Your task to perform on an android device: Search for Mexican restaurants on Maps Image 0: 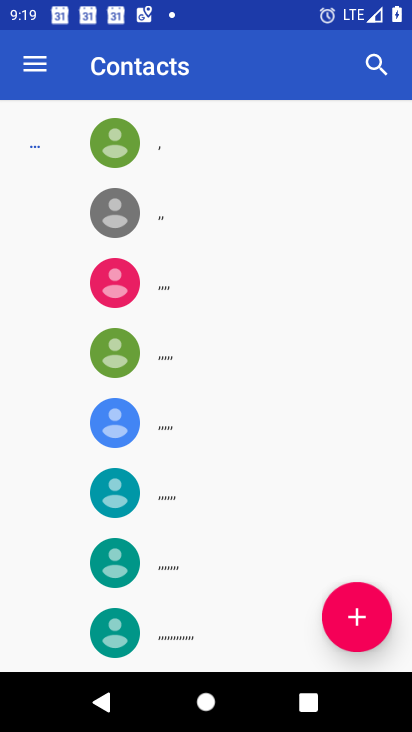
Step 0: press home button
Your task to perform on an android device: Search for Mexican restaurants on Maps Image 1: 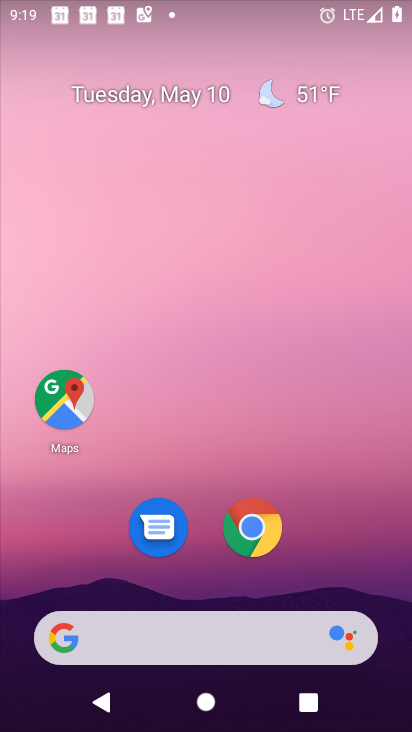
Step 1: click (60, 418)
Your task to perform on an android device: Search for Mexican restaurants on Maps Image 2: 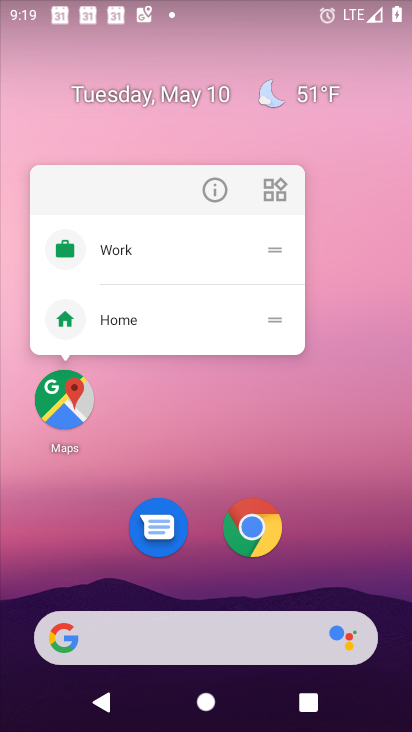
Step 2: click (75, 400)
Your task to perform on an android device: Search for Mexican restaurants on Maps Image 3: 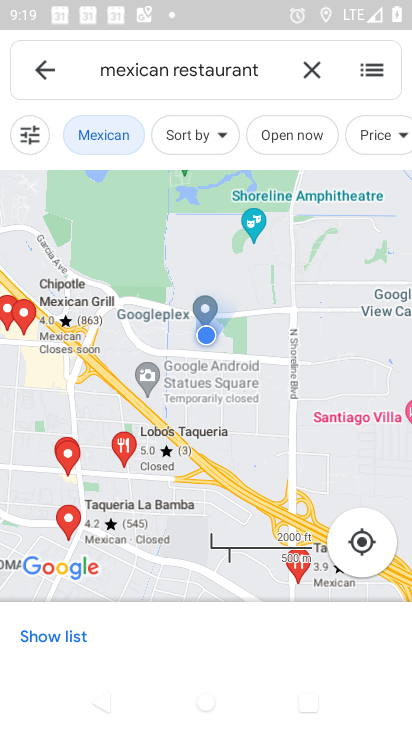
Step 3: task complete